Your task to perform on an android device: manage bookmarks in the chrome app Image 0: 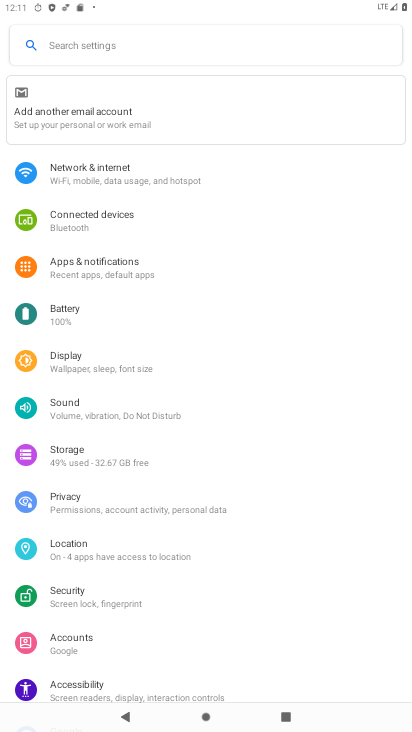
Step 0: press home button
Your task to perform on an android device: manage bookmarks in the chrome app Image 1: 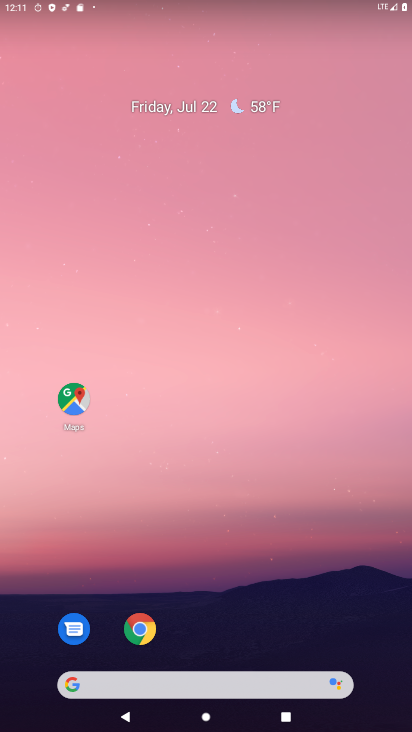
Step 1: drag from (347, 640) to (344, 183)
Your task to perform on an android device: manage bookmarks in the chrome app Image 2: 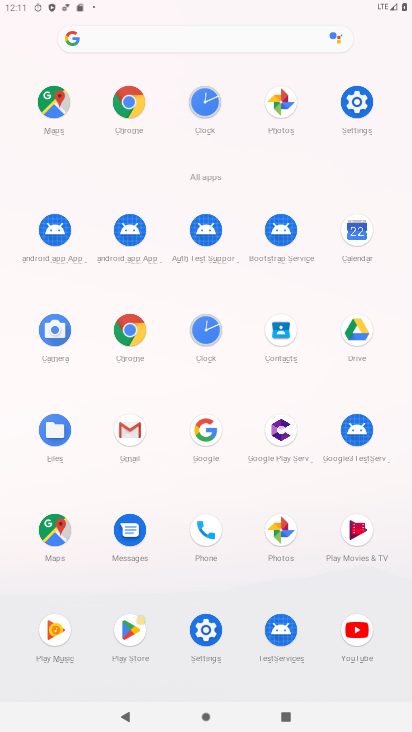
Step 2: click (124, 338)
Your task to perform on an android device: manage bookmarks in the chrome app Image 3: 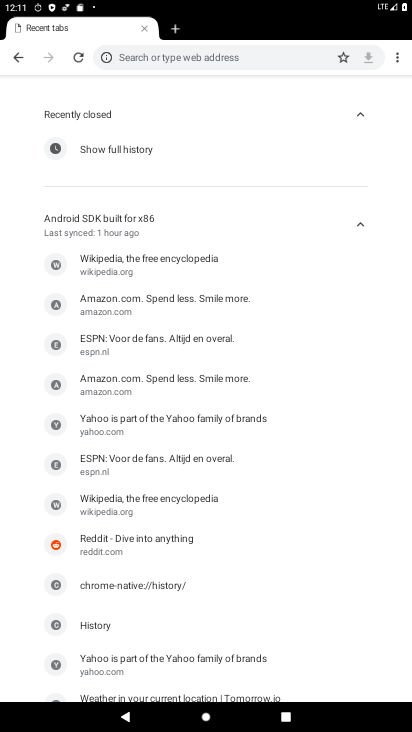
Step 3: click (395, 56)
Your task to perform on an android device: manage bookmarks in the chrome app Image 4: 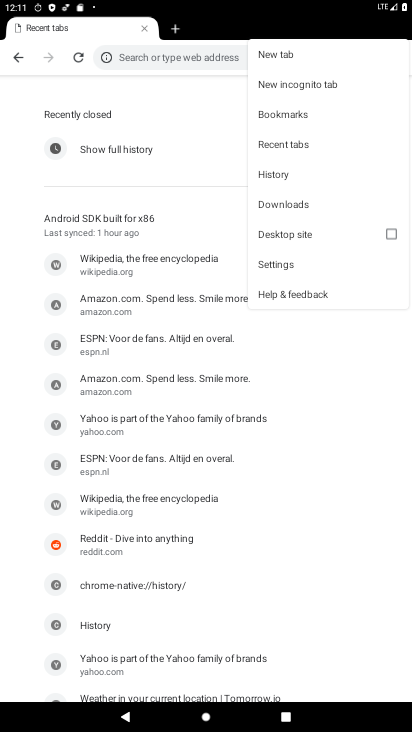
Step 4: click (319, 111)
Your task to perform on an android device: manage bookmarks in the chrome app Image 5: 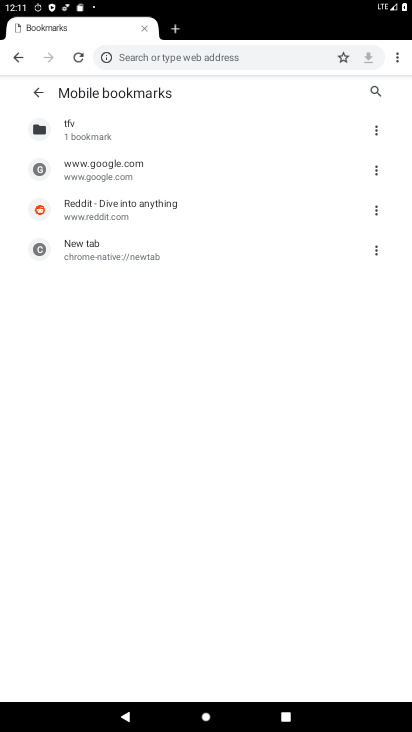
Step 5: click (378, 168)
Your task to perform on an android device: manage bookmarks in the chrome app Image 6: 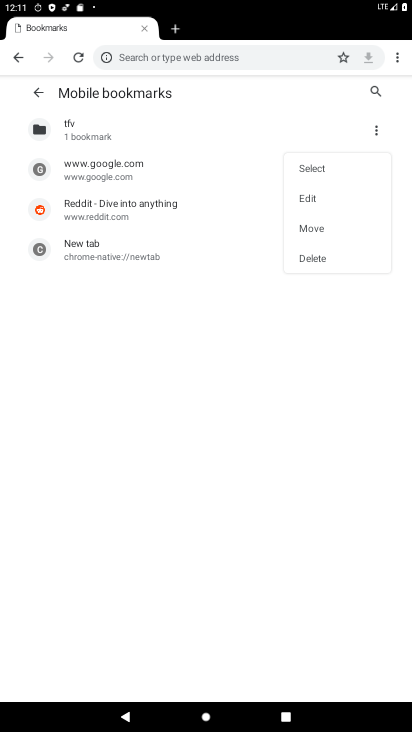
Step 6: click (328, 198)
Your task to perform on an android device: manage bookmarks in the chrome app Image 7: 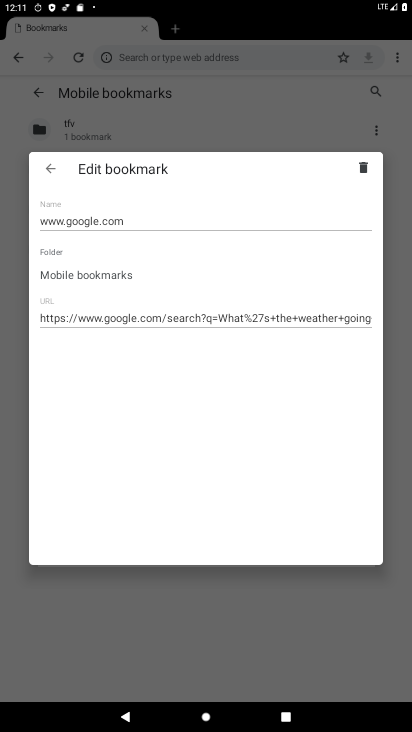
Step 7: click (282, 224)
Your task to perform on an android device: manage bookmarks in the chrome app Image 8: 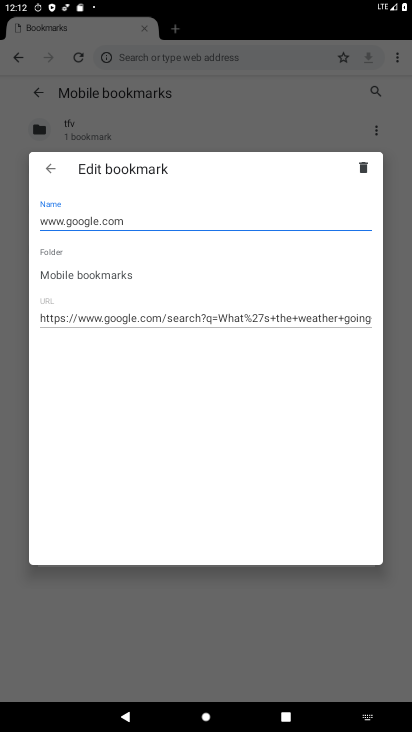
Step 8: type "m"
Your task to perform on an android device: manage bookmarks in the chrome app Image 9: 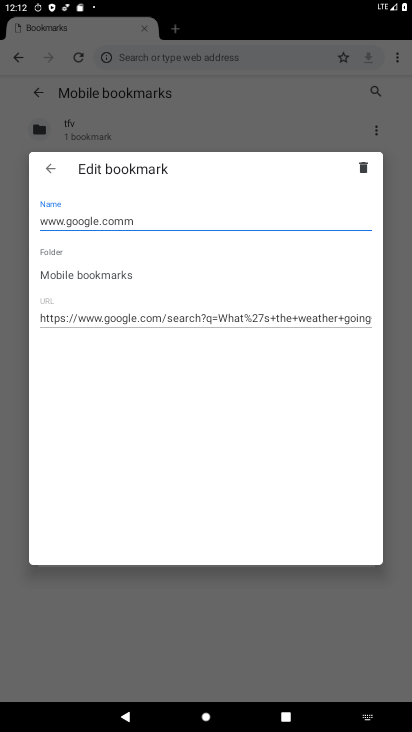
Step 9: click (49, 171)
Your task to perform on an android device: manage bookmarks in the chrome app Image 10: 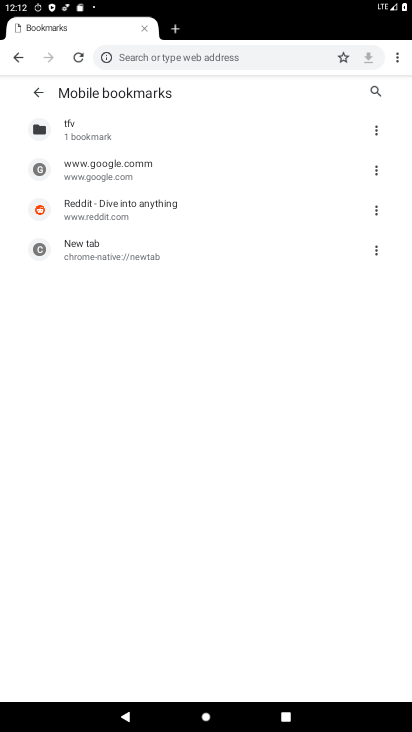
Step 10: task complete